Your task to perform on an android device: toggle notification dots Image 0: 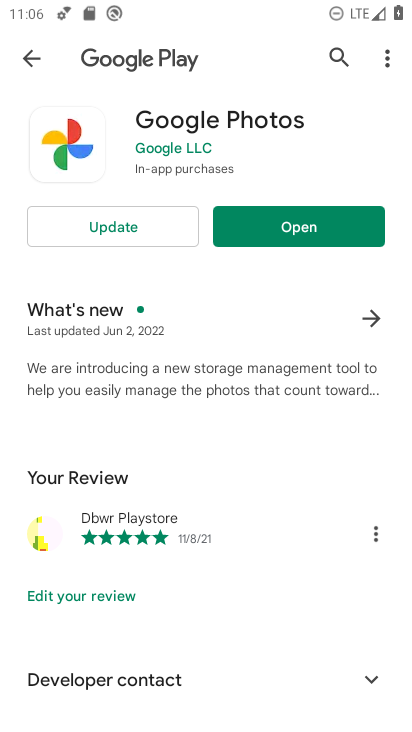
Step 0: press home button
Your task to perform on an android device: toggle notification dots Image 1: 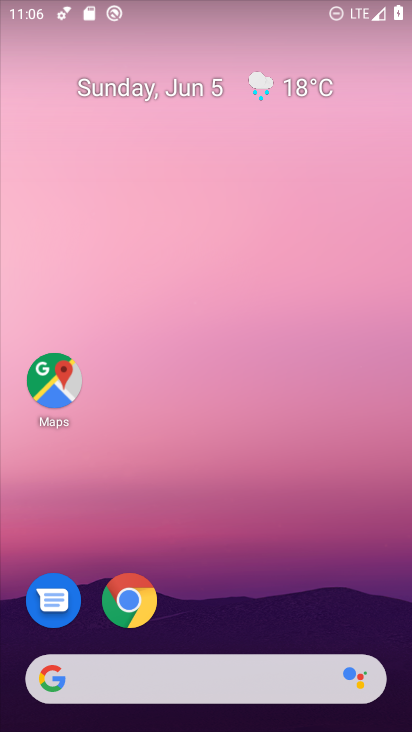
Step 1: drag from (220, 624) to (228, 165)
Your task to perform on an android device: toggle notification dots Image 2: 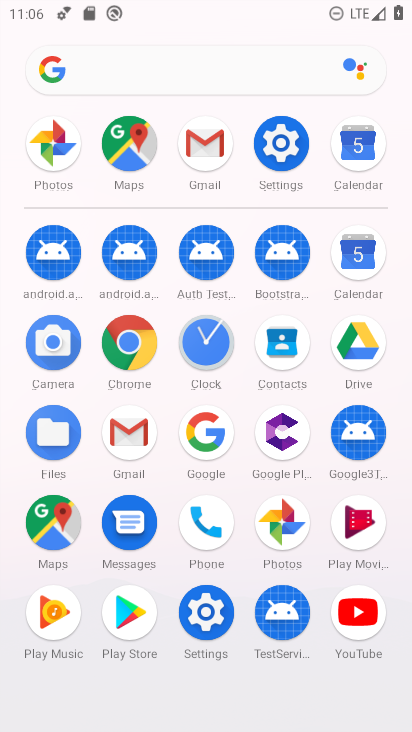
Step 2: click (272, 158)
Your task to perform on an android device: toggle notification dots Image 3: 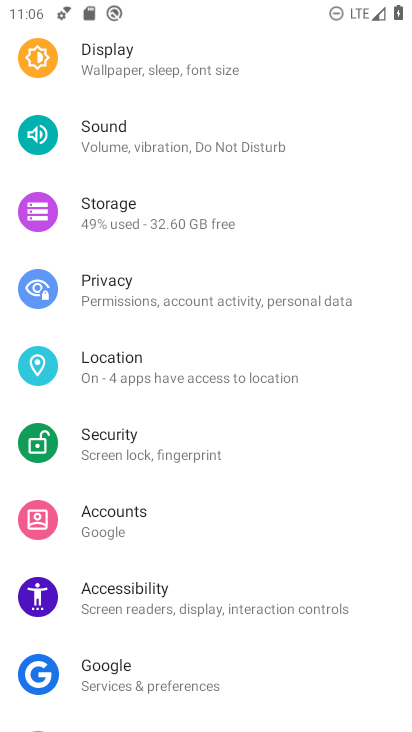
Step 3: drag from (188, 206) to (182, 535)
Your task to perform on an android device: toggle notification dots Image 4: 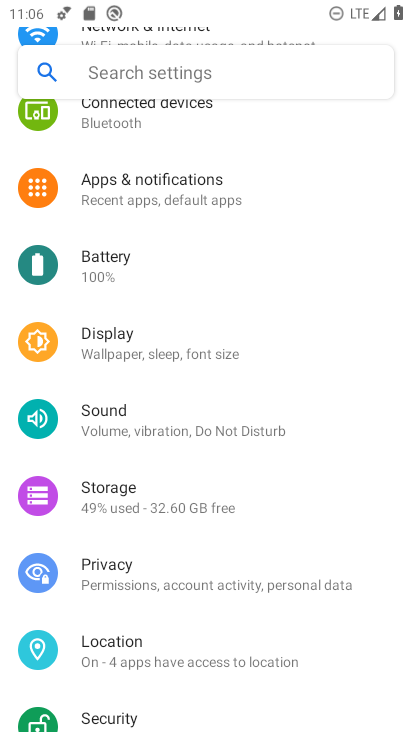
Step 4: click (195, 203)
Your task to perform on an android device: toggle notification dots Image 5: 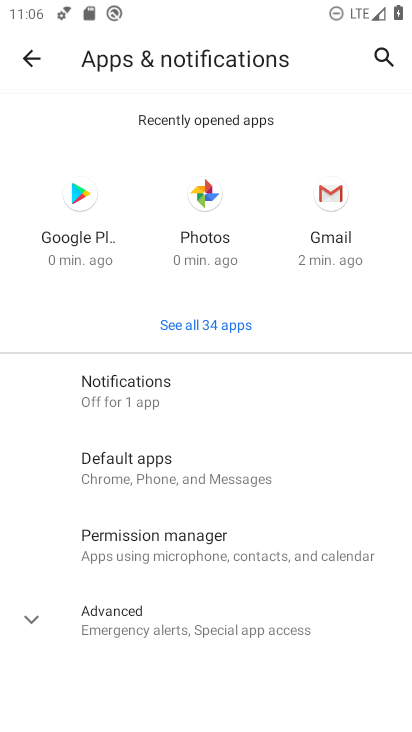
Step 5: click (164, 387)
Your task to perform on an android device: toggle notification dots Image 6: 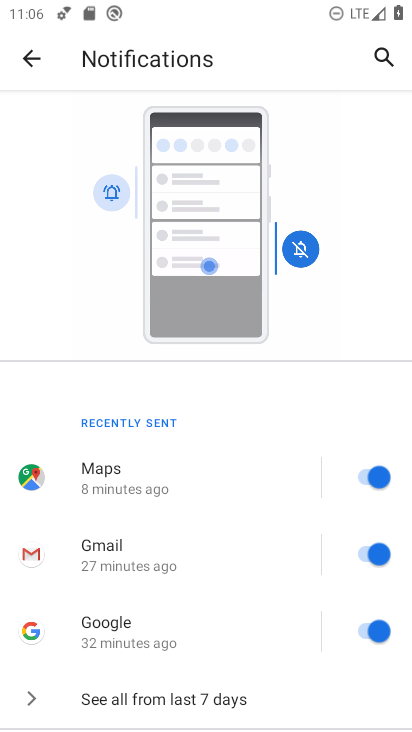
Step 6: drag from (188, 682) to (191, 215)
Your task to perform on an android device: toggle notification dots Image 7: 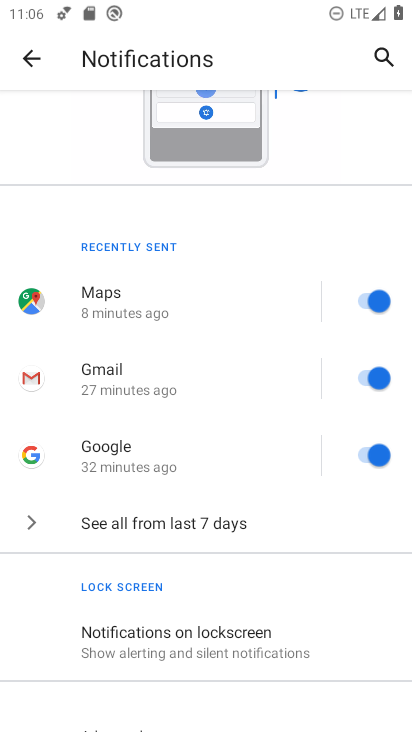
Step 7: drag from (174, 566) to (193, 224)
Your task to perform on an android device: toggle notification dots Image 8: 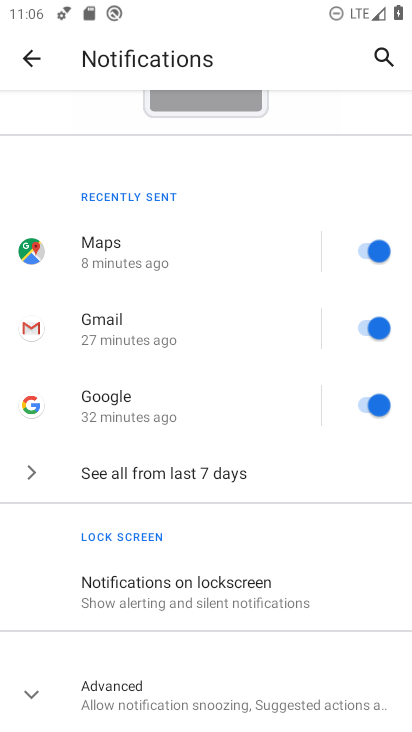
Step 8: click (168, 675)
Your task to perform on an android device: toggle notification dots Image 9: 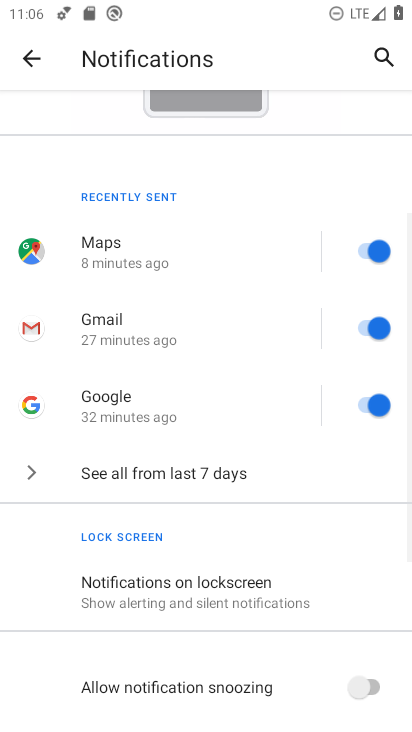
Step 9: drag from (225, 623) to (258, 179)
Your task to perform on an android device: toggle notification dots Image 10: 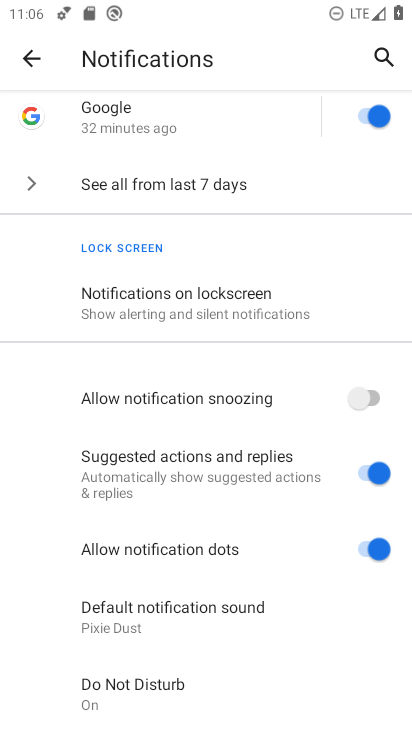
Step 10: click (351, 547)
Your task to perform on an android device: toggle notification dots Image 11: 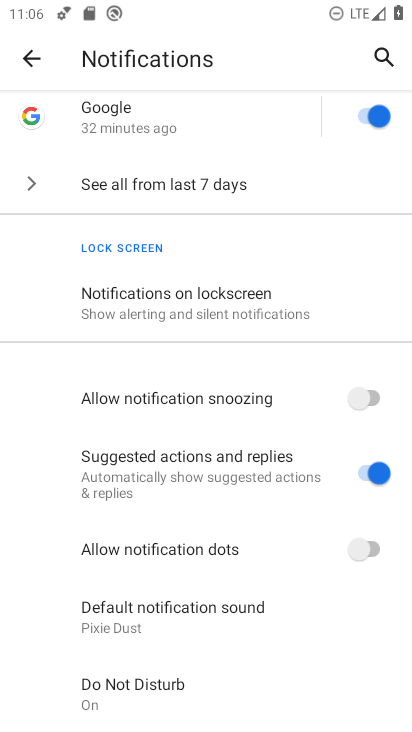
Step 11: task complete